Your task to perform on an android device: turn off notifications settings in the gmail app Image 0: 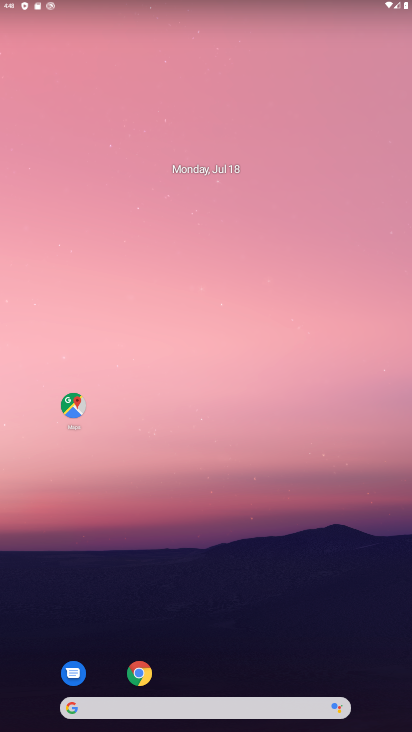
Step 0: drag from (209, 575) to (67, 162)
Your task to perform on an android device: turn off notifications settings in the gmail app Image 1: 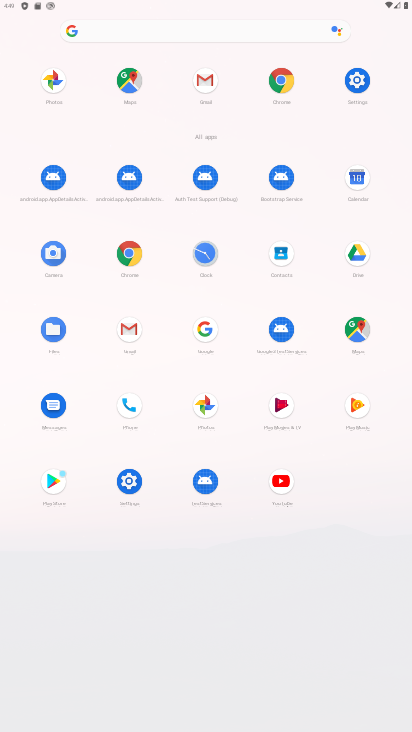
Step 1: click (200, 85)
Your task to perform on an android device: turn off notifications settings in the gmail app Image 2: 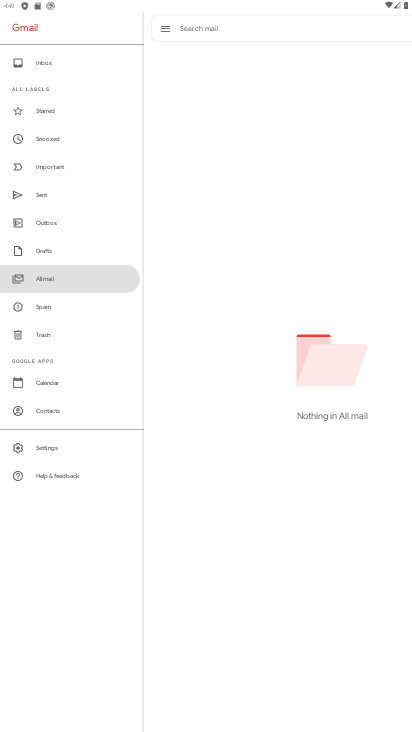
Step 2: click (67, 457)
Your task to perform on an android device: turn off notifications settings in the gmail app Image 3: 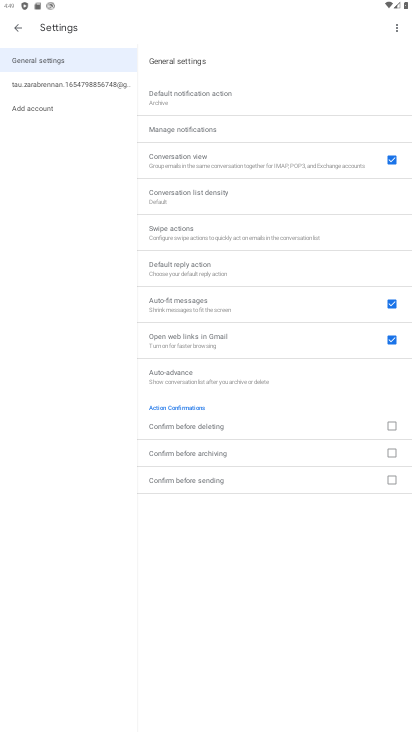
Step 3: click (58, 83)
Your task to perform on an android device: turn off notifications settings in the gmail app Image 4: 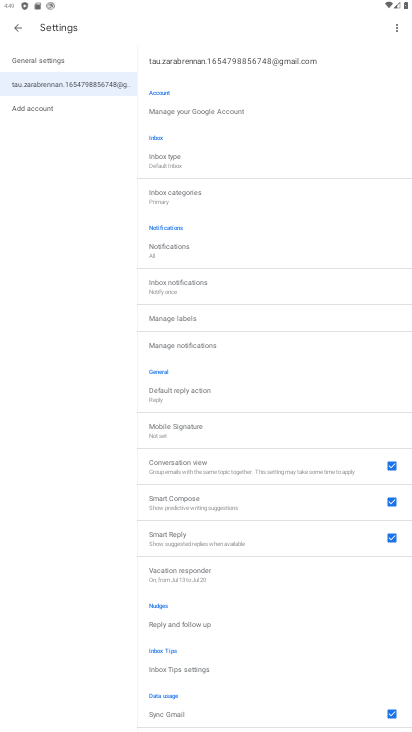
Step 4: click (181, 255)
Your task to perform on an android device: turn off notifications settings in the gmail app Image 5: 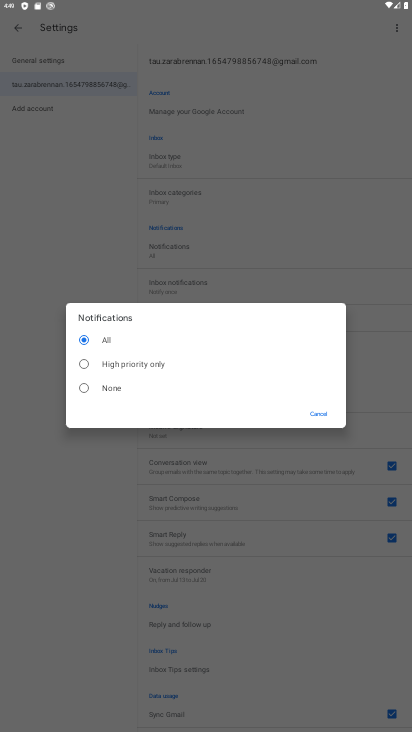
Step 5: click (80, 386)
Your task to perform on an android device: turn off notifications settings in the gmail app Image 6: 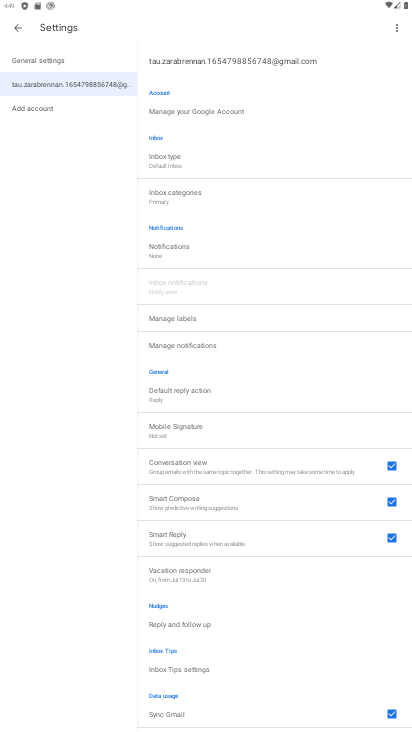
Step 6: task complete